Your task to perform on an android device: turn on the 24-hour format for clock Image 0: 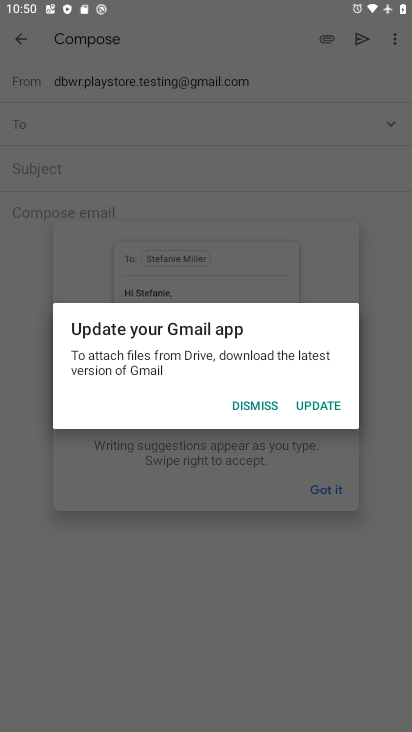
Step 0: press home button
Your task to perform on an android device: turn on the 24-hour format for clock Image 1: 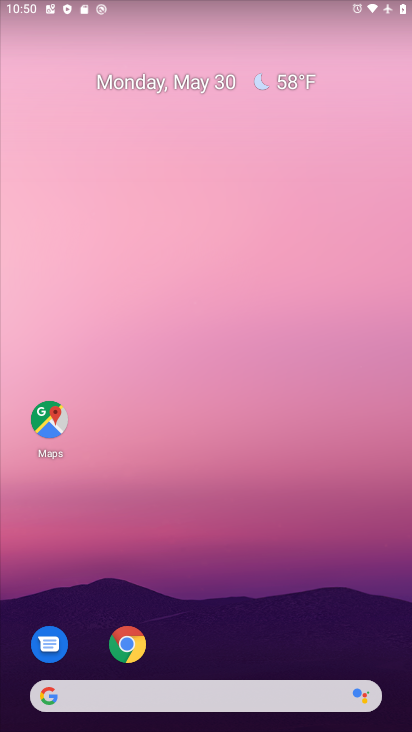
Step 1: drag from (395, 673) to (334, 147)
Your task to perform on an android device: turn on the 24-hour format for clock Image 2: 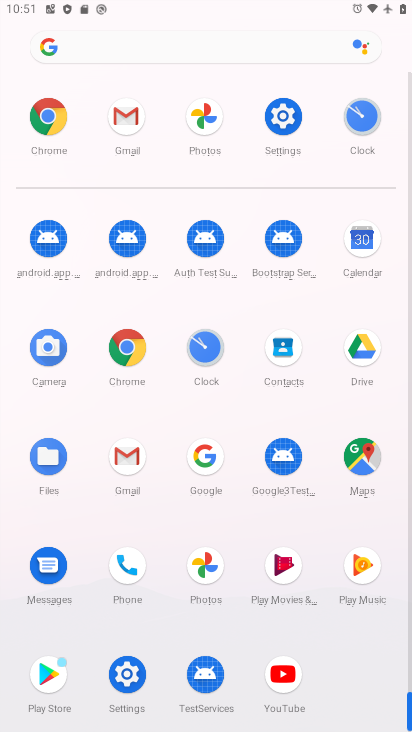
Step 2: click (203, 347)
Your task to perform on an android device: turn on the 24-hour format for clock Image 3: 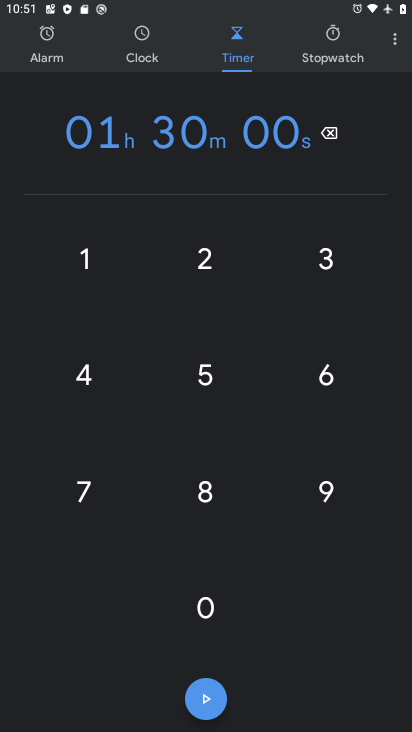
Step 3: click (397, 44)
Your task to perform on an android device: turn on the 24-hour format for clock Image 4: 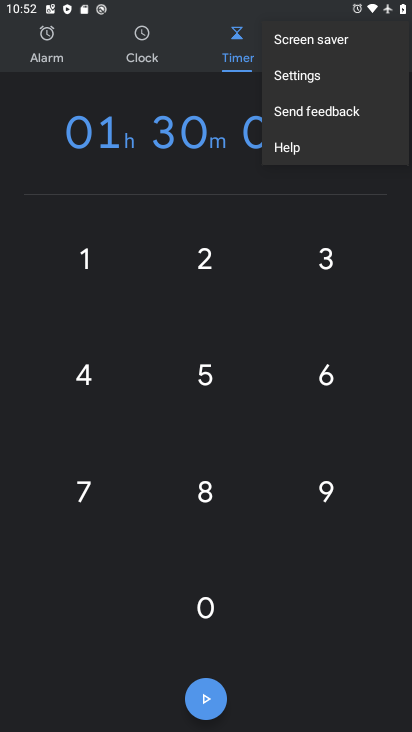
Step 4: click (293, 74)
Your task to perform on an android device: turn on the 24-hour format for clock Image 5: 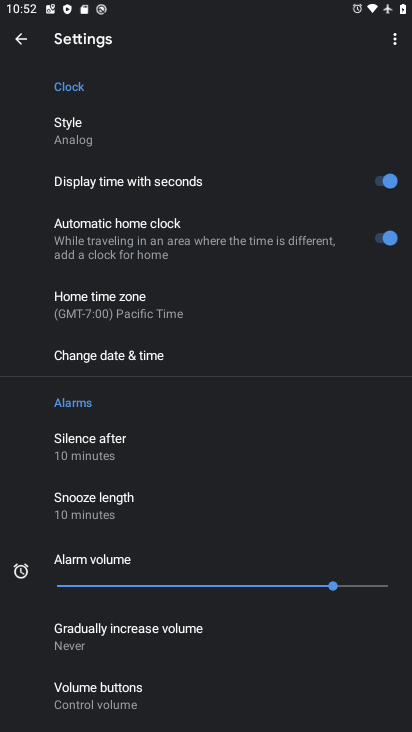
Step 5: click (141, 354)
Your task to perform on an android device: turn on the 24-hour format for clock Image 6: 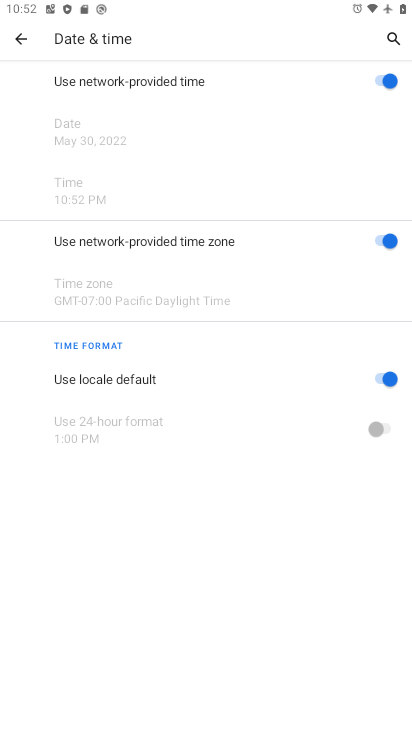
Step 6: click (380, 380)
Your task to perform on an android device: turn on the 24-hour format for clock Image 7: 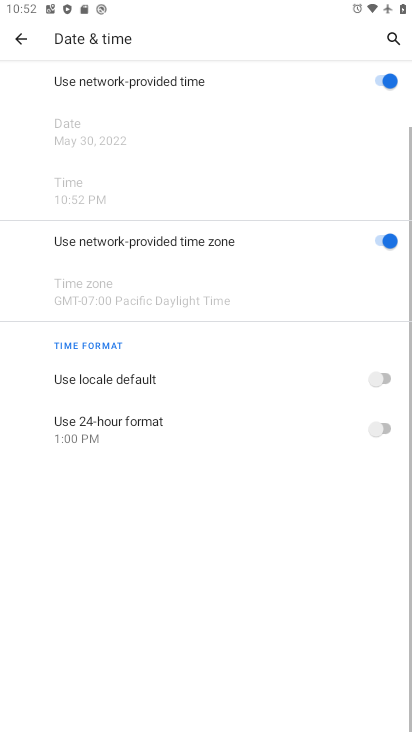
Step 7: click (385, 429)
Your task to perform on an android device: turn on the 24-hour format for clock Image 8: 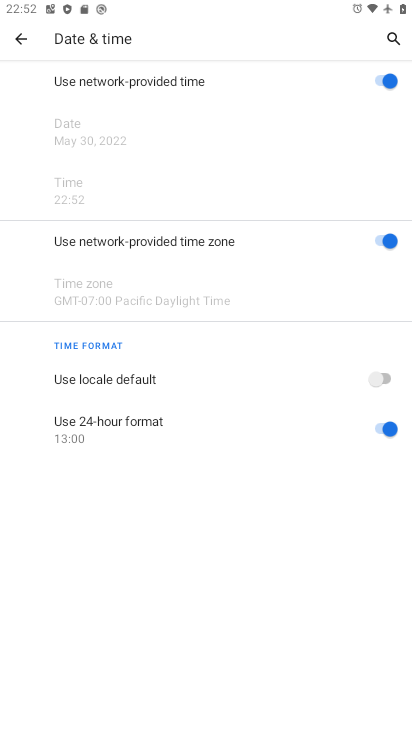
Step 8: task complete